Your task to perform on an android device: Go to privacy settings Image 0: 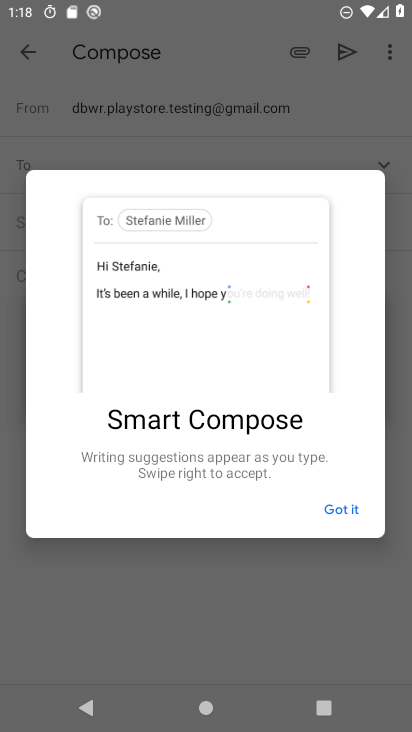
Step 0: press home button
Your task to perform on an android device: Go to privacy settings Image 1: 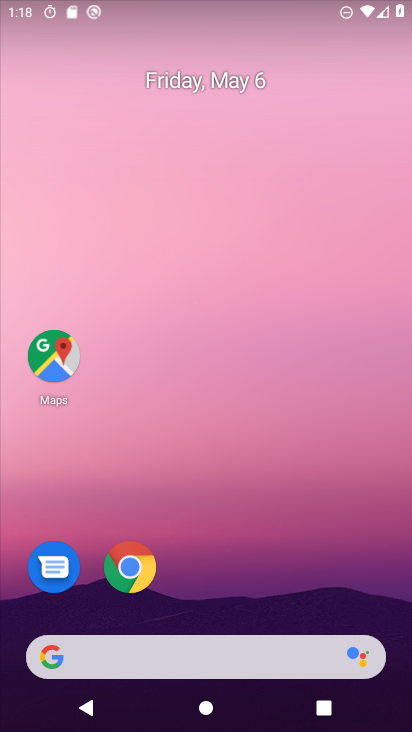
Step 1: drag from (302, 676) to (227, 269)
Your task to perform on an android device: Go to privacy settings Image 2: 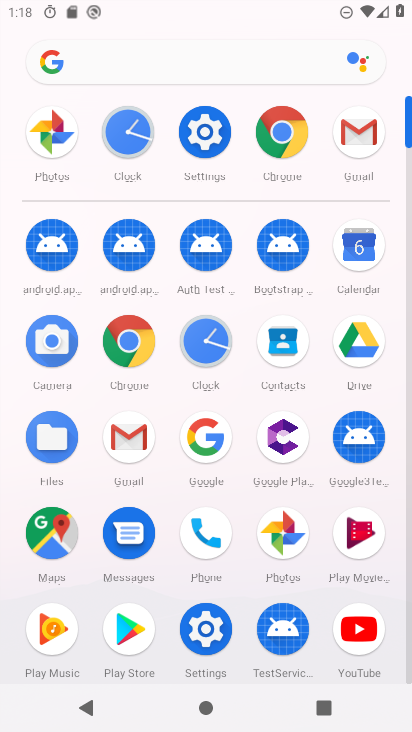
Step 2: click (196, 138)
Your task to perform on an android device: Go to privacy settings Image 3: 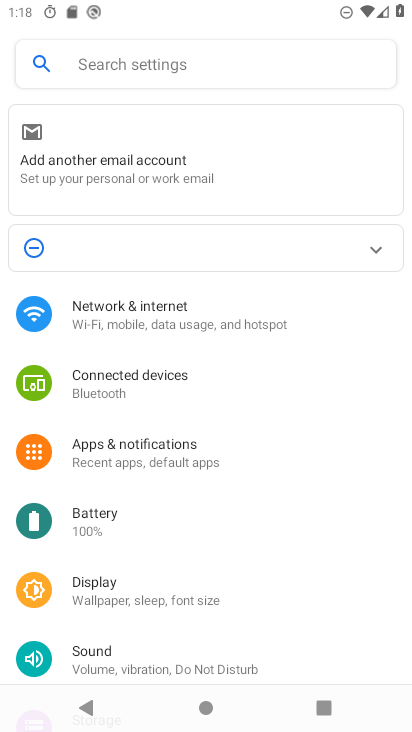
Step 3: click (168, 80)
Your task to perform on an android device: Go to privacy settings Image 4: 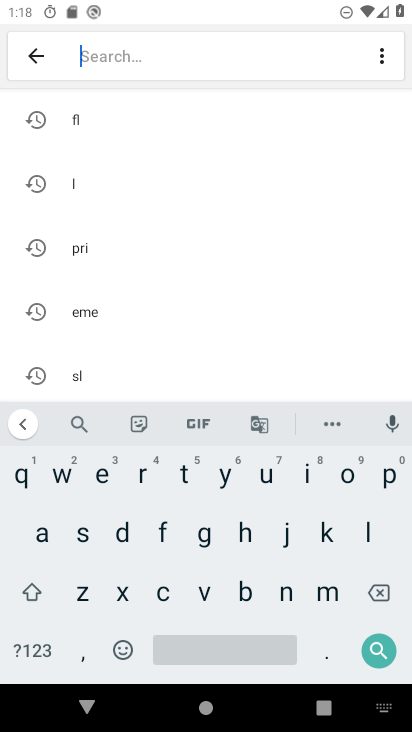
Step 4: click (125, 243)
Your task to perform on an android device: Go to privacy settings Image 5: 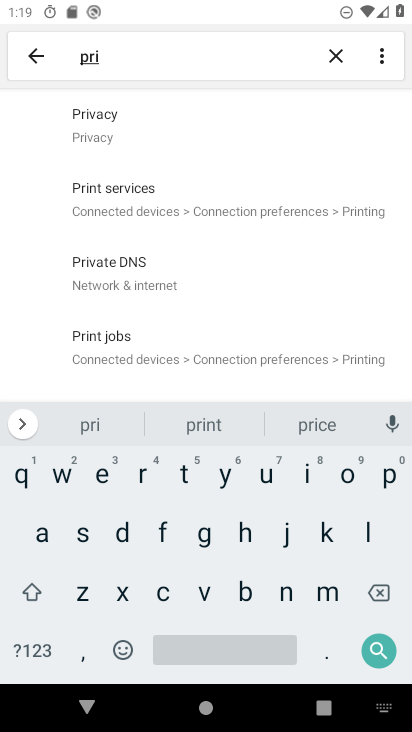
Step 5: click (137, 133)
Your task to perform on an android device: Go to privacy settings Image 6: 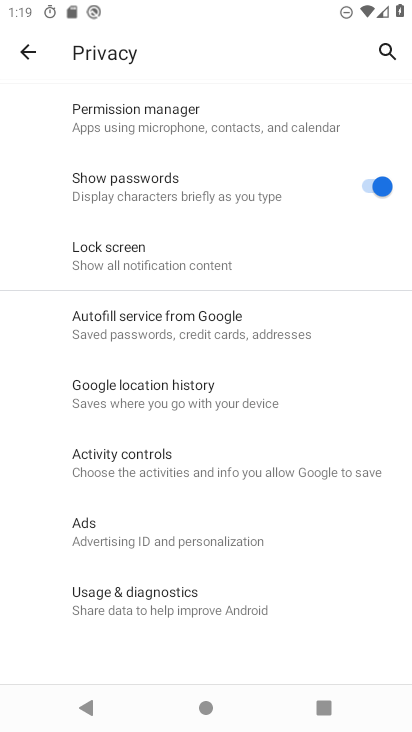
Step 6: task complete